Your task to perform on an android device: see tabs open on other devices in the chrome app Image 0: 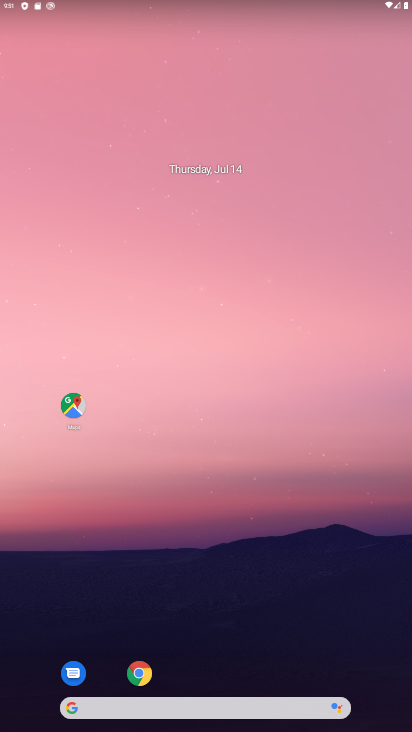
Step 0: drag from (237, 561) to (222, 57)
Your task to perform on an android device: see tabs open on other devices in the chrome app Image 1: 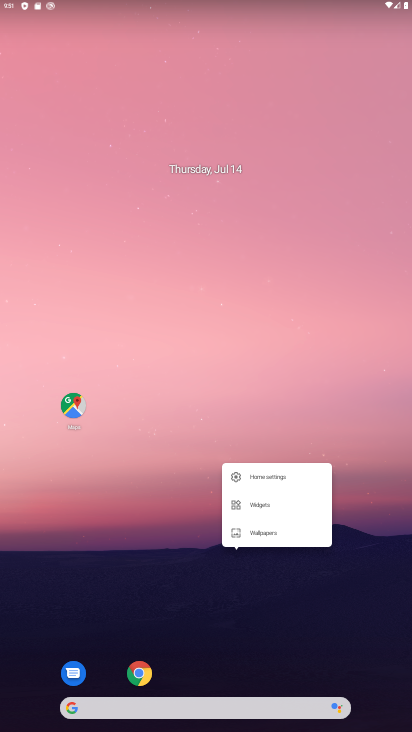
Step 1: click (127, 508)
Your task to perform on an android device: see tabs open on other devices in the chrome app Image 2: 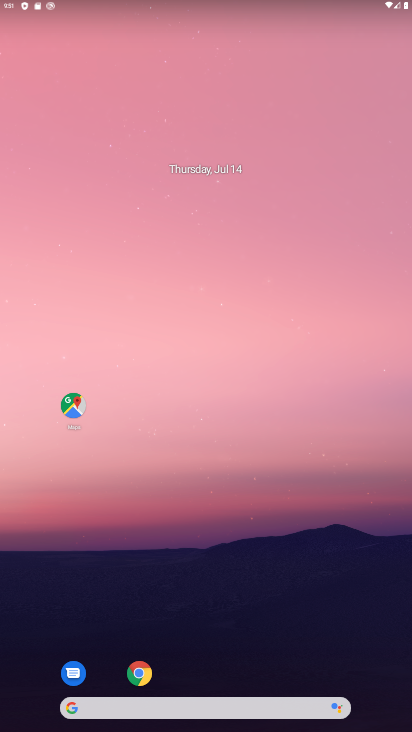
Step 2: click (139, 675)
Your task to perform on an android device: see tabs open on other devices in the chrome app Image 3: 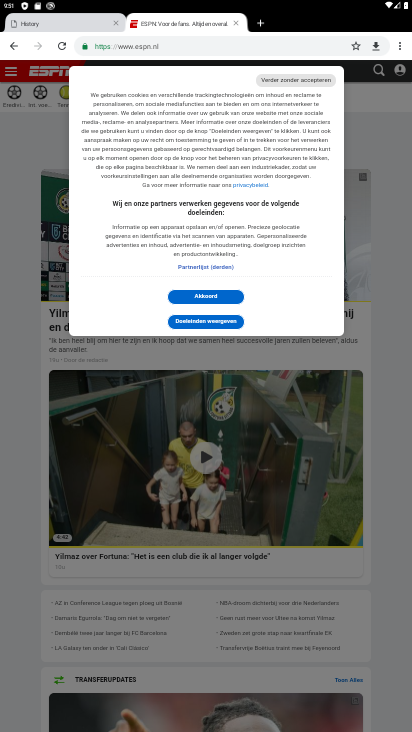
Step 3: click (400, 41)
Your task to perform on an android device: see tabs open on other devices in the chrome app Image 4: 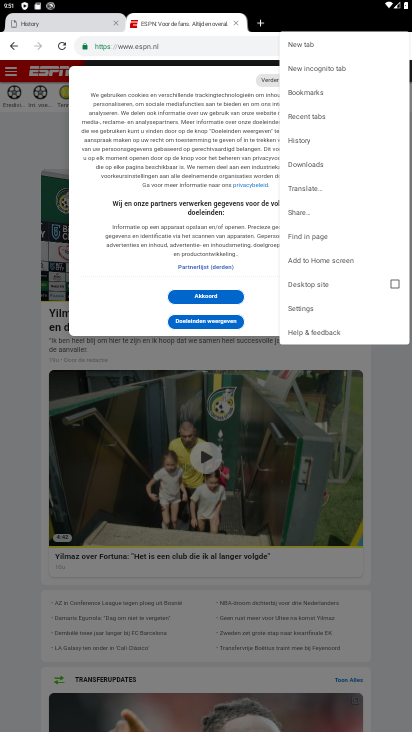
Step 4: click (310, 115)
Your task to perform on an android device: see tabs open on other devices in the chrome app Image 5: 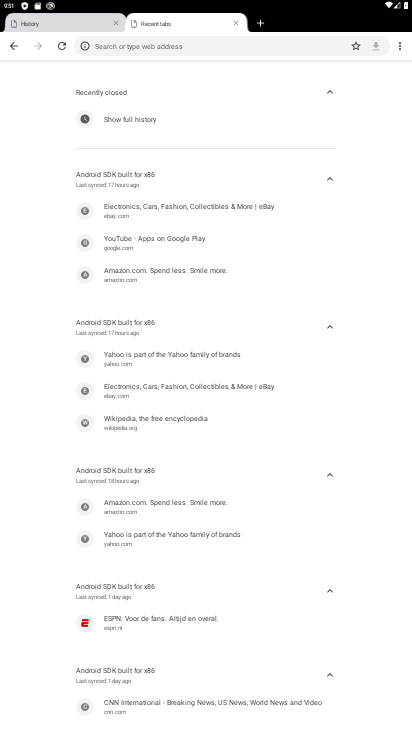
Step 5: task complete